Your task to perform on an android device: Go to Reddit.com Image 0: 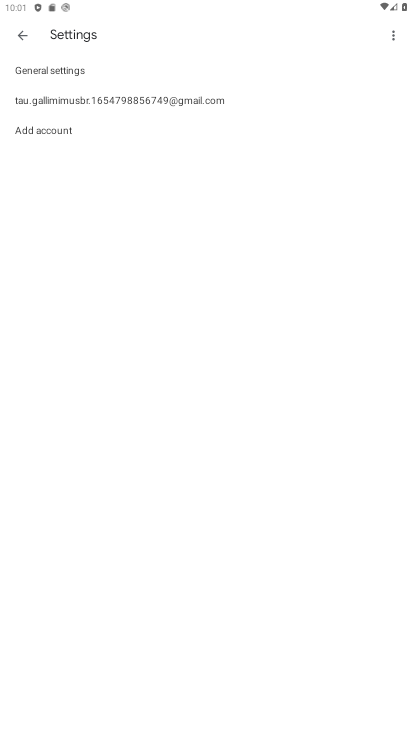
Step 0: press home button
Your task to perform on an android device: Go to Reddit.com Image 1: 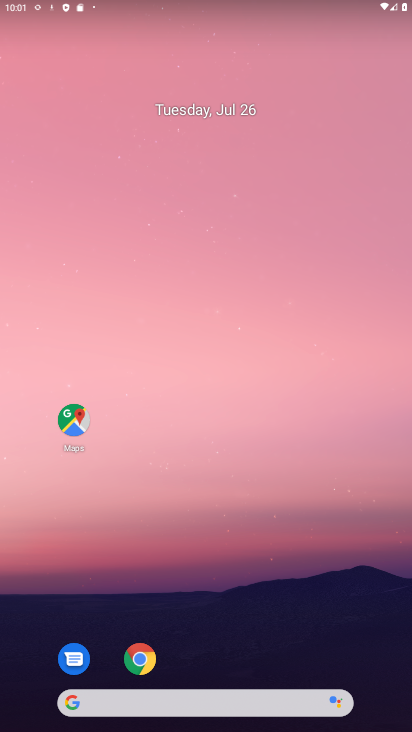
Step 1: click (150, 666)
Your task to perform on an android device: Go to Reddit.com Image 2: 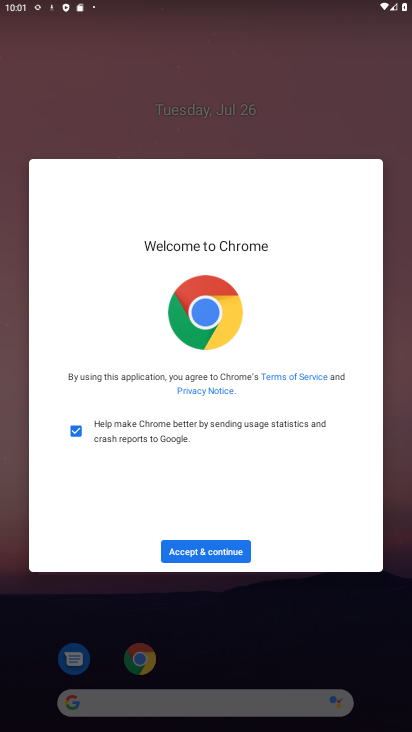
Step 2: click (197, 553)
Your task to perform on an android device: Go to Reddit.com Image 3: 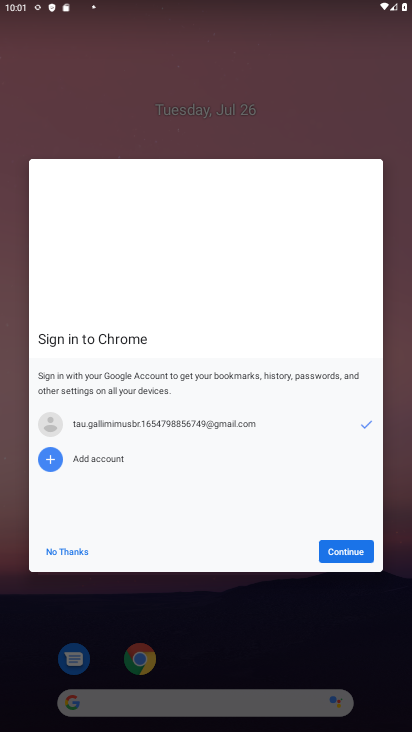
Step 3: click (335, 549)
Your task to perform on an android device: Go to Reddit.com Image 4: 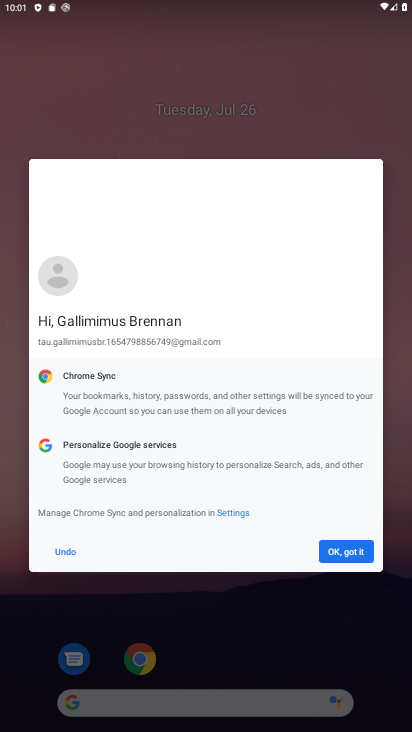
Step 4: click (335, 549)
Your task to perform on an android device: Go to Reddit.com Image 5: 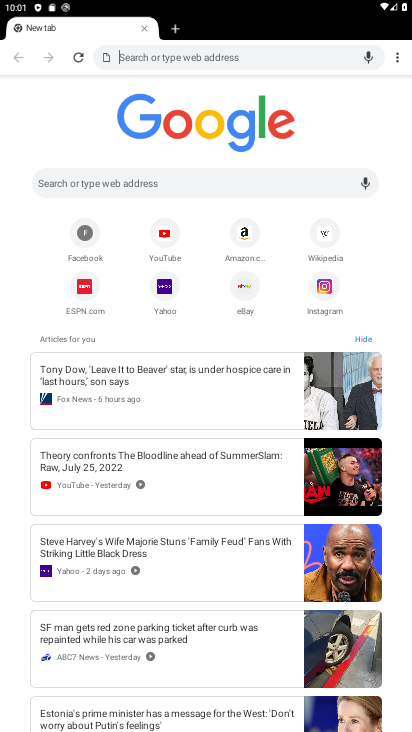
Step 5: click (167, 182)
Your task to perform on an android device: Go to Reddit.com Image 6: 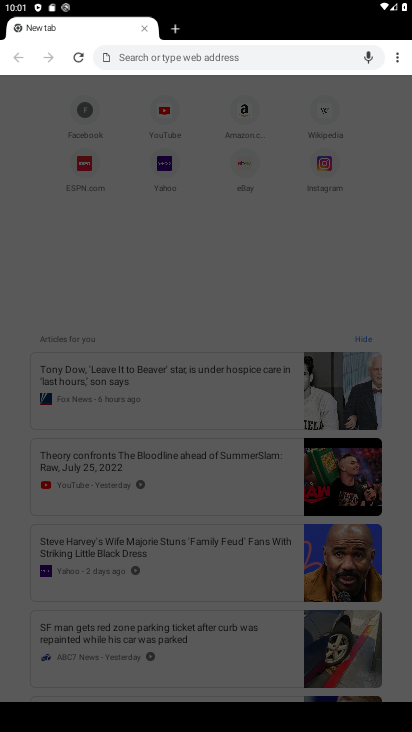
Step 6: type " Reddit.com"
Your task to perform on an android device: Go to Reddit.com Image 7: 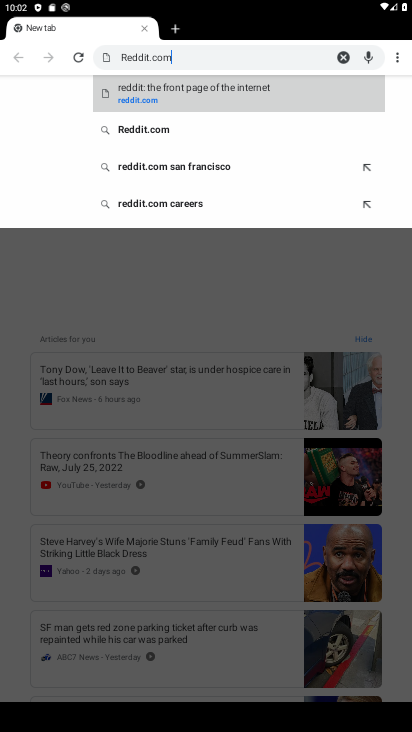
Step 7: type ""
Your task to perform on an android device: Go to Reddit.com Image 8: 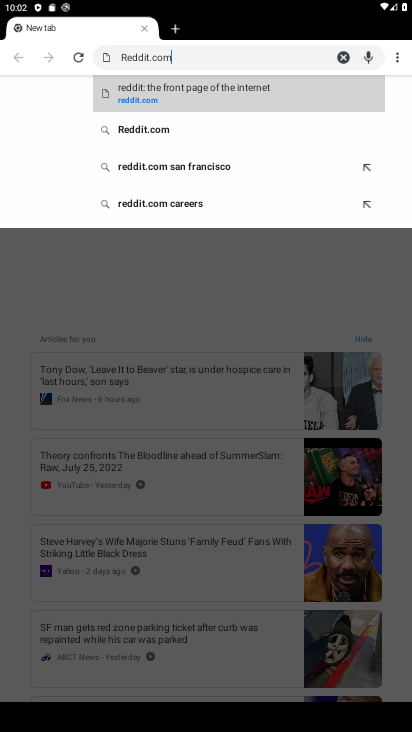
Step 8: click (164, 85)
Your task to perform on an android device: Go to Reddit.com Image 9: 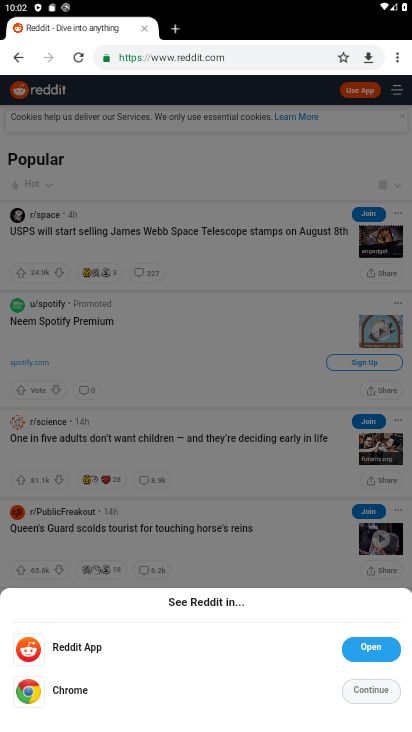
Step 9: task complete